Your task to perform on an android device: change notification settings in the gmail app Image 0: 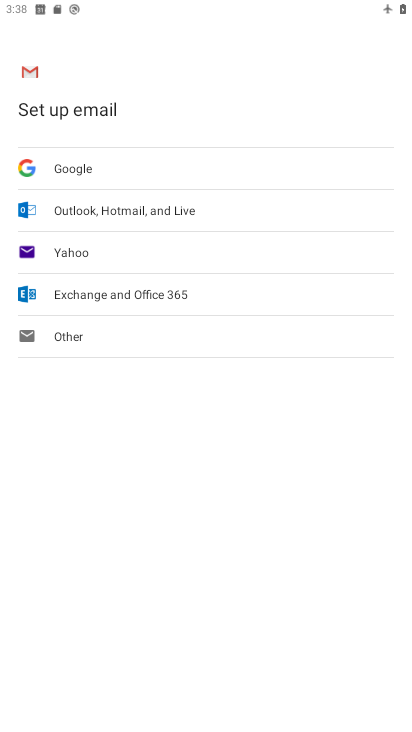
Step 0: press home button
Your task to perform on an android device: change notification settings in the gmail app Image 1: 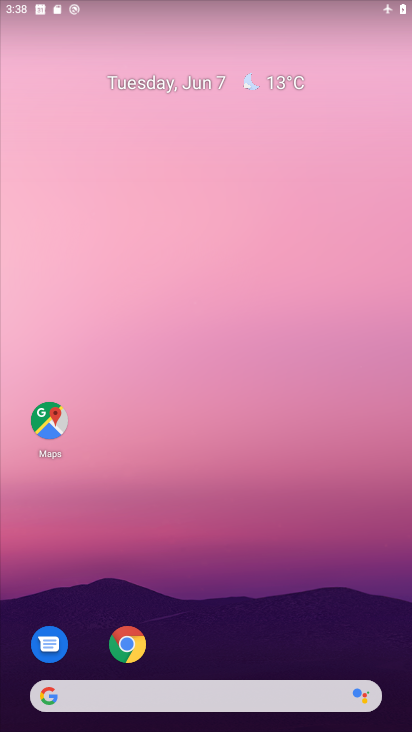
Step 1: drag from (307, 607) to (311, 195)
Your task to perform on an android device: change notification settings in the gmail app Image 2: 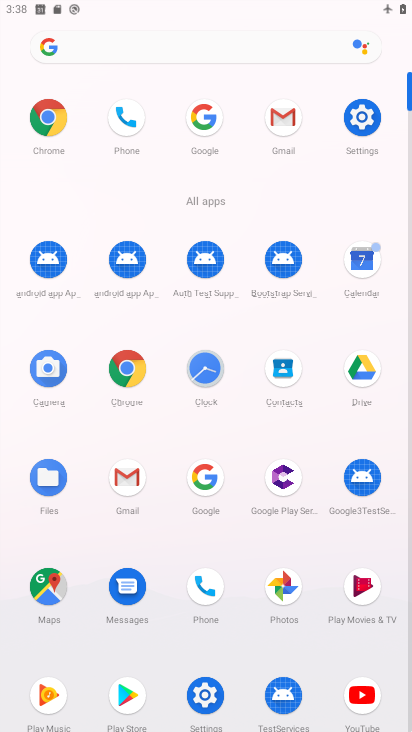
Step 2: click (276, 127)
Your task to perform on an android device: change notification settings in the gmail app Image 3: 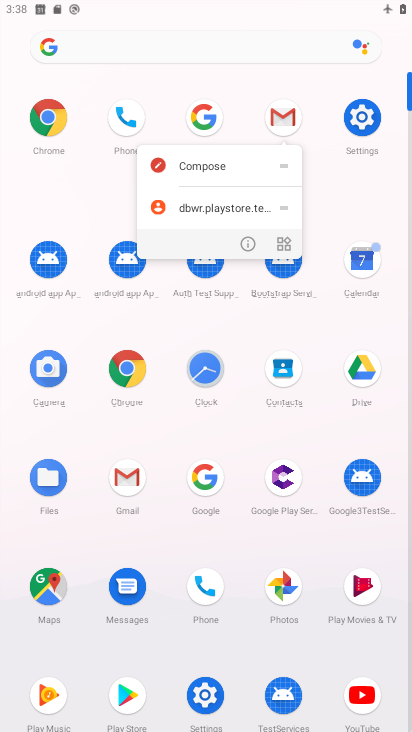
Step 3: click (287, 125)
Your task to perform on an android device: change notification settings in the gmail app Image 4: 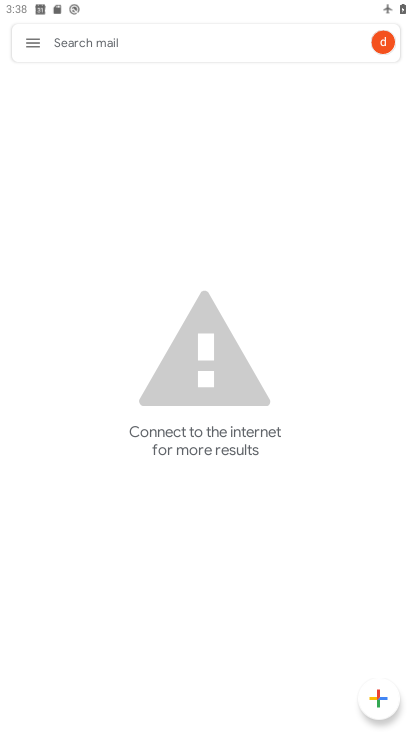
Step 4: click (26, 37)
Your task to perform on an android device: change notification settings in the gmail app Image 5: 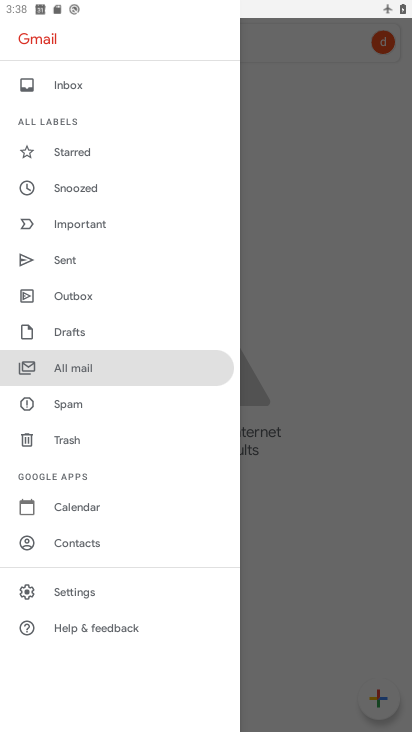
Step 5: click (77, 590)
Your task to perform on an android device: change notification settings in the gmail app Image 6: 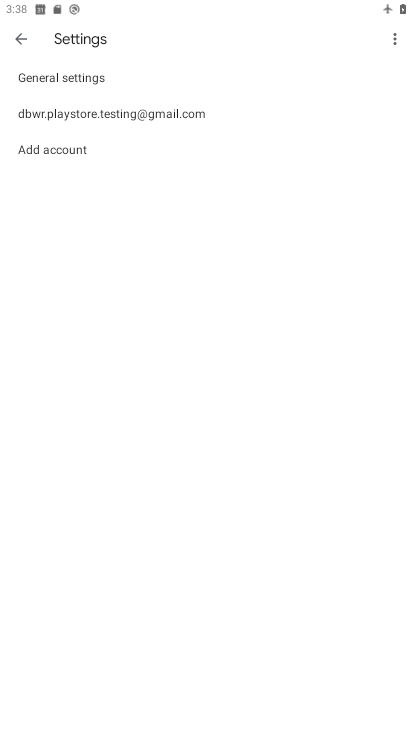
Step 6: click (183, 130)
Your task to perform on an android device: change notification settings in the gmail app Image 7: 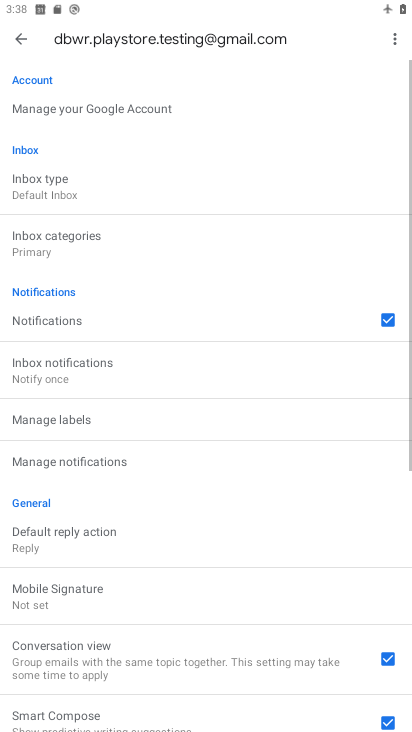
Step 7: drag from (253, 436) to (255, 379)
Your task to perform on an android device: change notification settings in the gmail app Image 8: 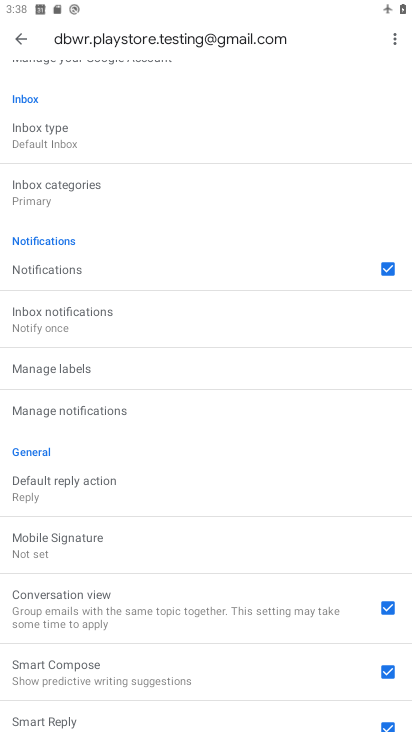
Step 8: drag from (244, 453) to (249, 322)
Your task to perform on an android device: change notification settings in the gmail app Image 9: 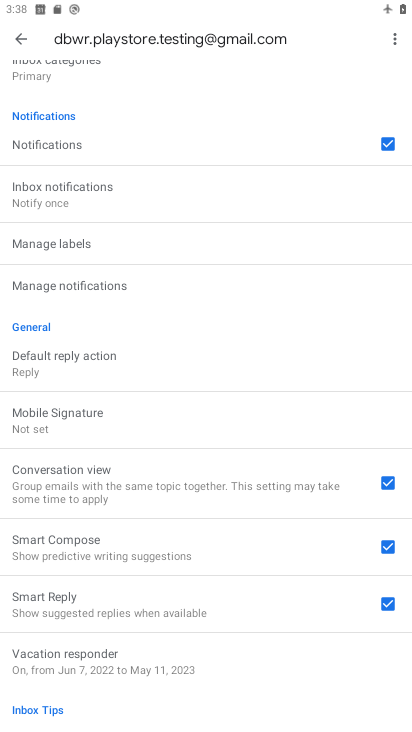
Step 9: click (154, 282)
Your task to perform on an android device: change notification settings in the gmail app Image 10: 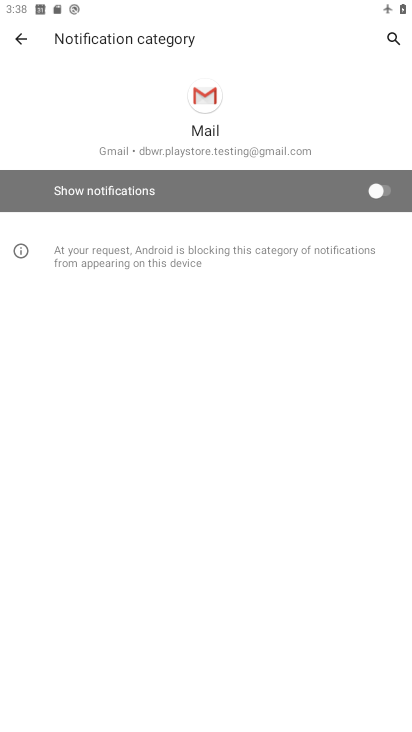
Step 10: click (373, 195)
Your task to perform on an android device: change notification settings in the gmail app Image 11: 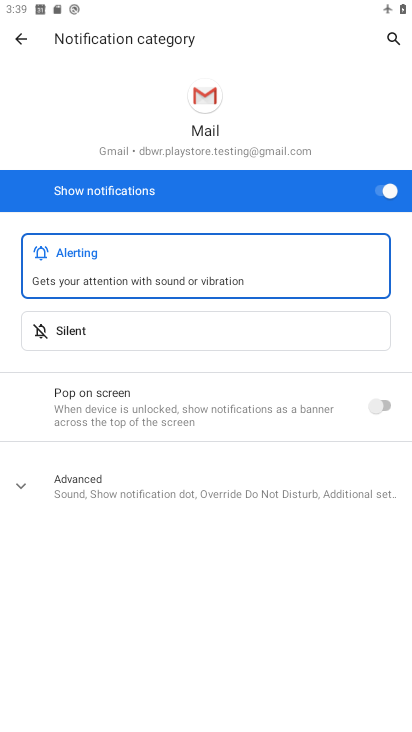
Step 11: task complete